Your task to perform on an android device: Go to eBay Image 0: 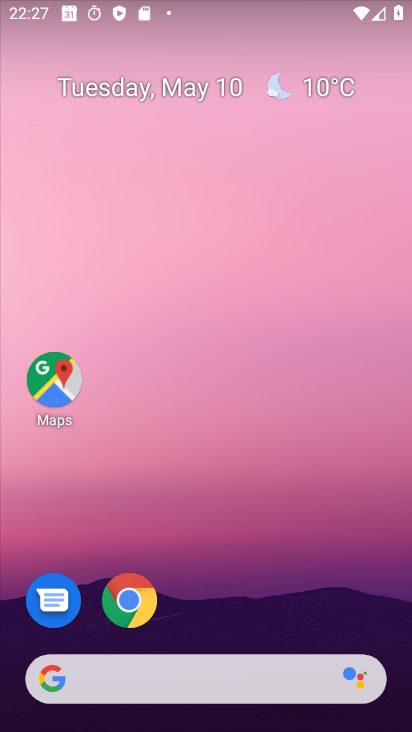
Step 0: drag from (297, 570) to (278, 172)
Your task to perform on an android device: Go to eBay Image 1: 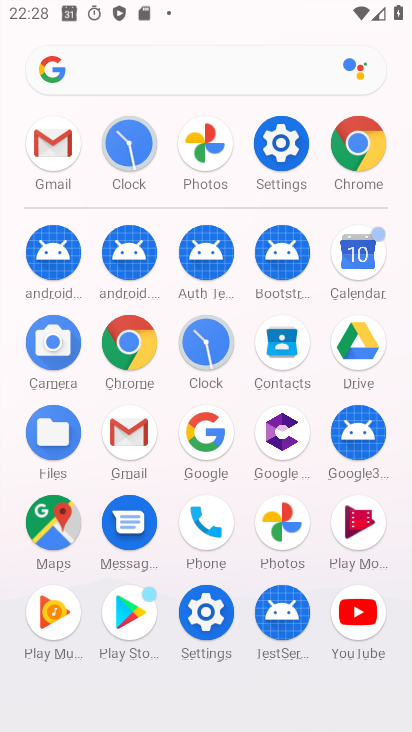
Step 1: click (367, 137)
Your task to perform on an android device: Go to eBay Image 2: 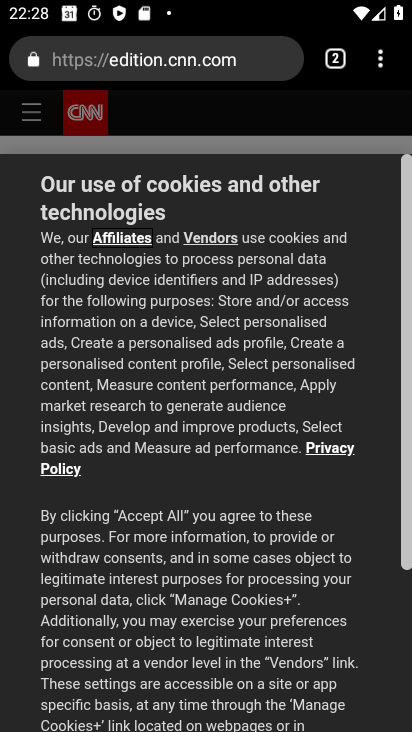
Step 2: click (164, 69)
Your task to perform on an android device: Go to eBay Image 3: 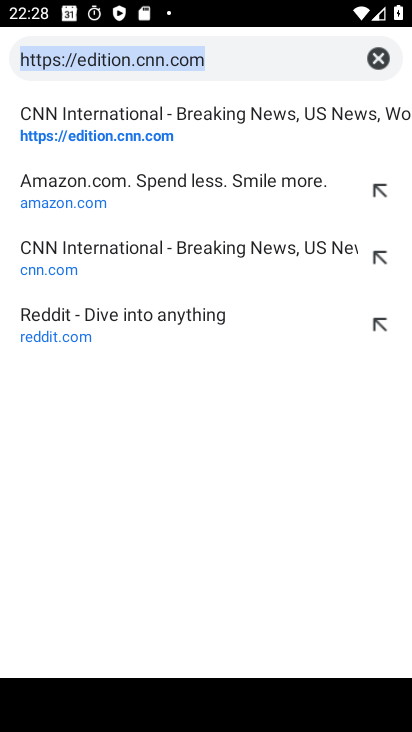
Step 3: click (376, 62)
Your task to perform on an android device: Go to eBay Image 4: 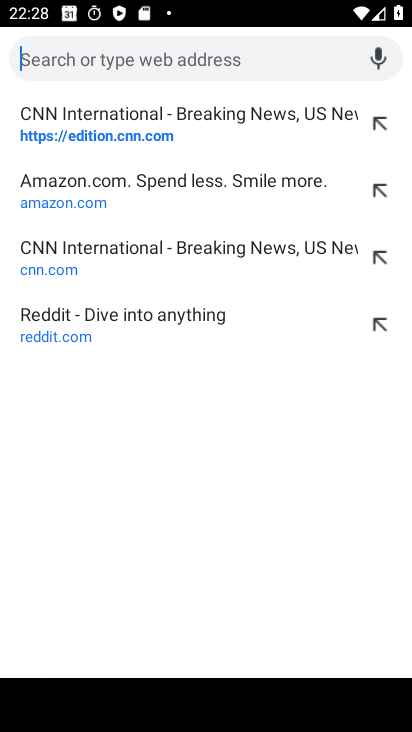
Step 4: type "ebay"
Your task to perform on an android device: Go to eBay Image 5: 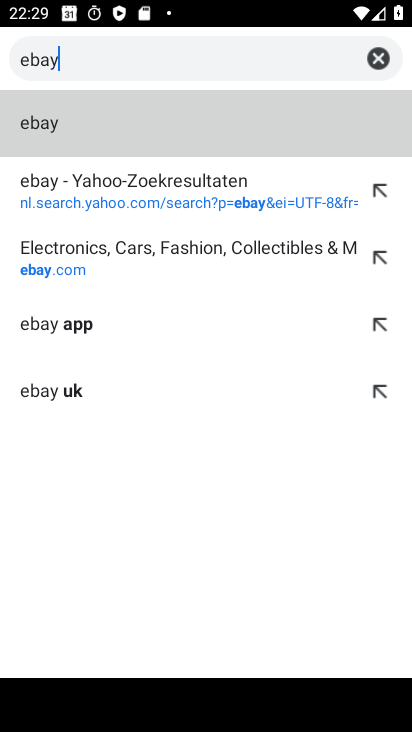
Step 5: click (65, 189)
Your task to perform on an android device: Go to eBay Image 6: 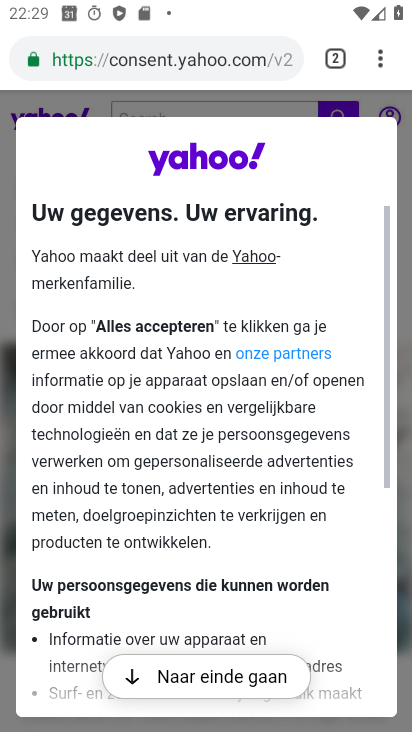
Step 6: click (142, 58)
Your task to perform on an android device: Go to eBay Image 7: 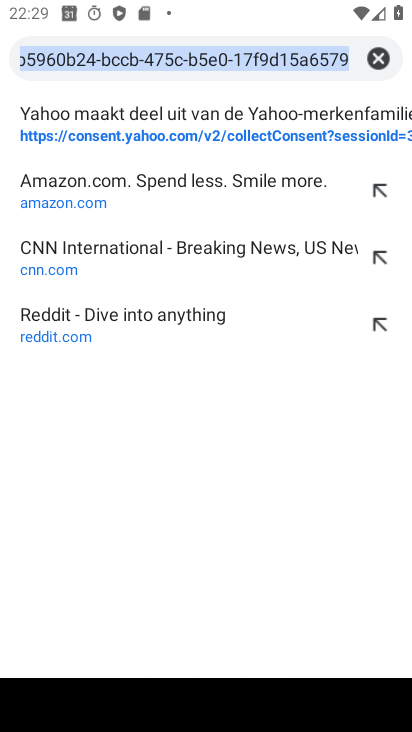
Step 7: click (374, 60)
Your task to perform on an android device: Go to eBay Image 8: 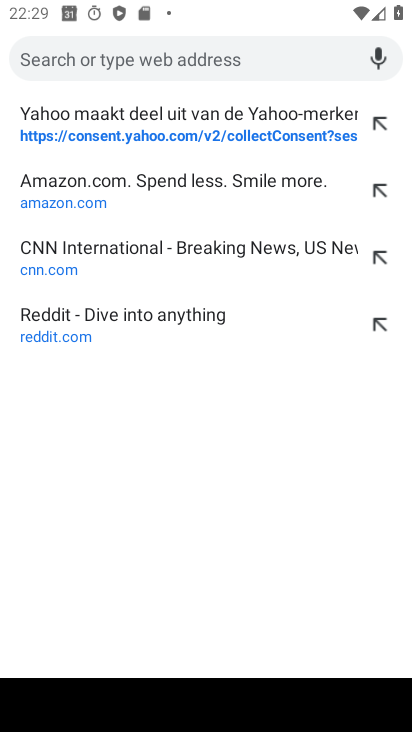
Step 8: type "ebay"
Your task to perform on an android device: Go to eBay Image 9: 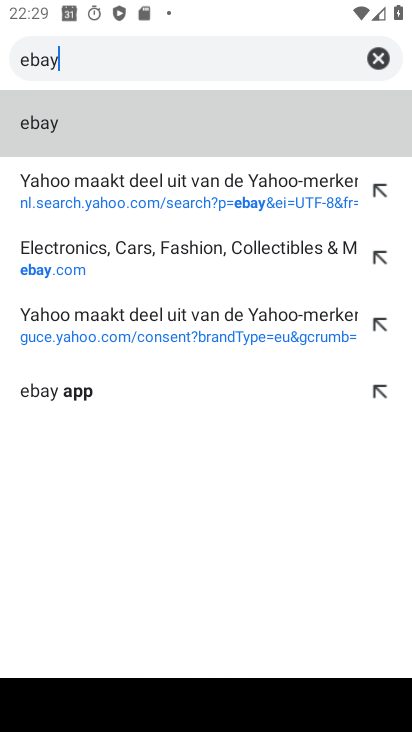
Step 9: click (76, 114)
Your task to perform on an android device: Go to eBay Image 10: 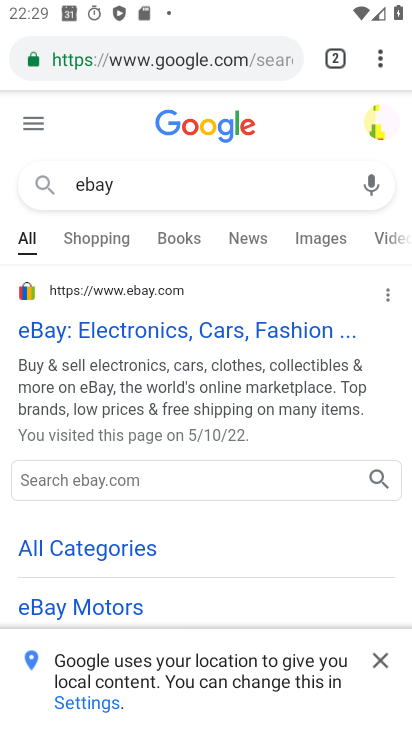
Step 10: click (51, 332)
Your task to perform on an android device: Go to eBay Image 11: 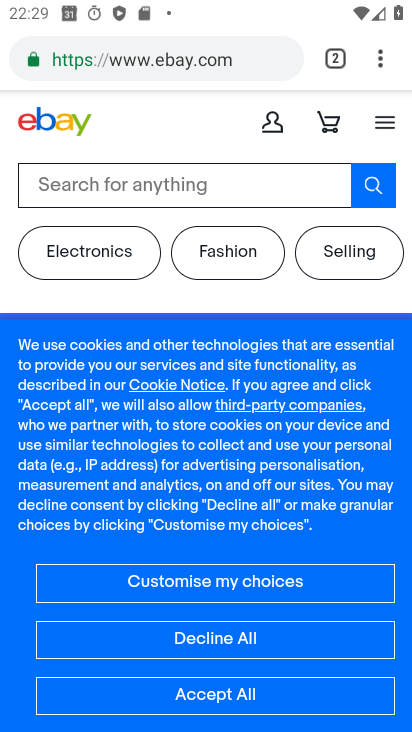
Step 11: task complete